Your task to perform on an android device: change notifications settings Image 0: 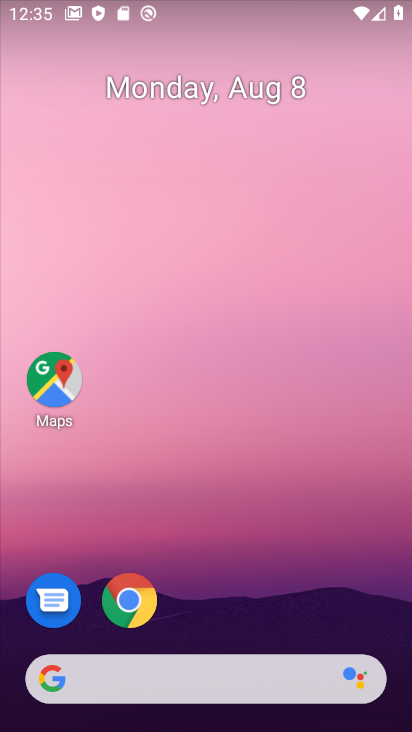
Step 0: press home button
Your task to perform on an android device: change notifications settings Image 1: 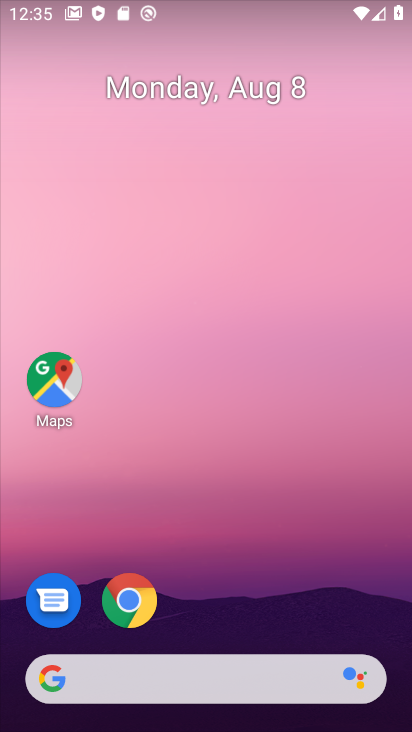
Step 1: drag from (315, 623) to (349, 125)
Your task to perform on an android device: change notifications settings Image 2: 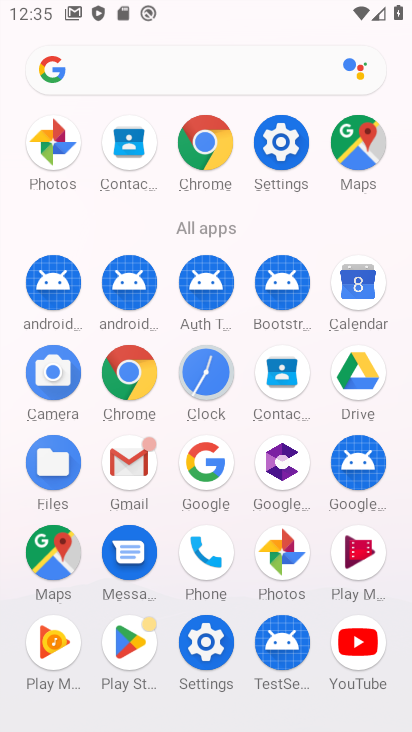
Step 2: click (203, 654)
Your task to perform on an android device: change notifications settings Image 3: 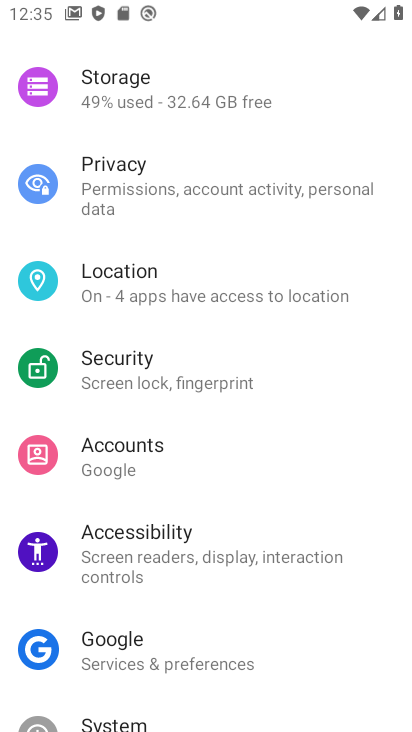
Step 3: drag from (192, 94) to (305, 721)
Your task to perform on an android device: change notifications settings Image 4: 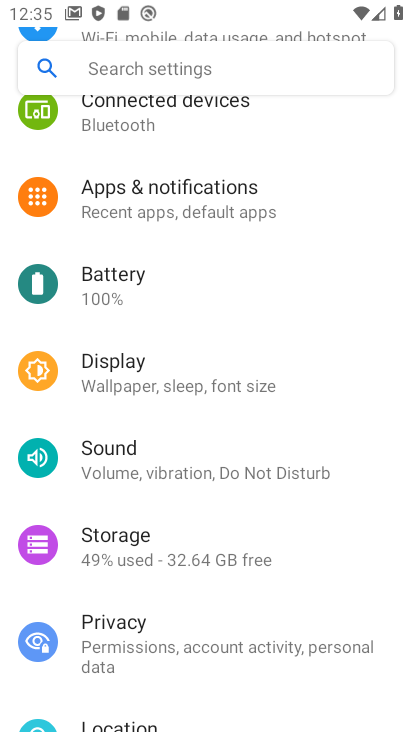
Step 4: click (148, 209)
Your task to perform on an android device: change notifications settings Image 5: 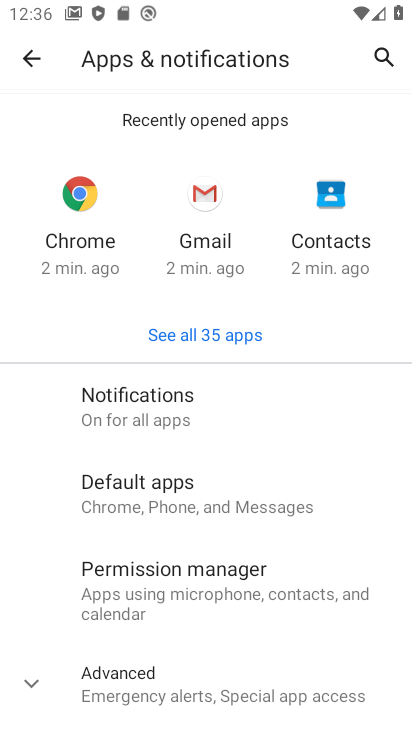
Step 5: click (168, 409)
Your task to perform on an android device: change notifications settings Image 6: 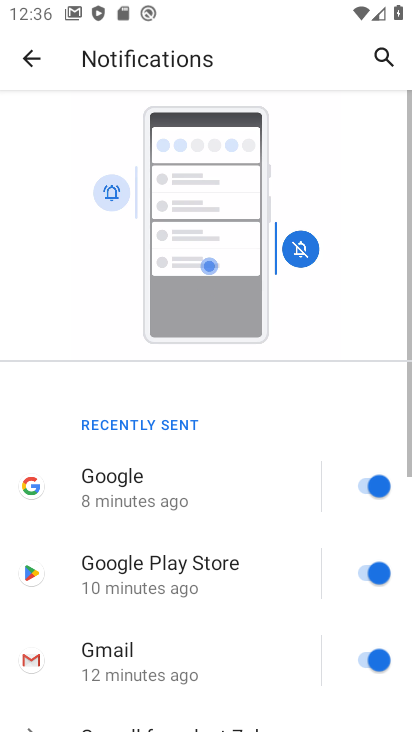
Step 6: task complete